Your task to perform on an android device: Open Yahoo.com Image 0: 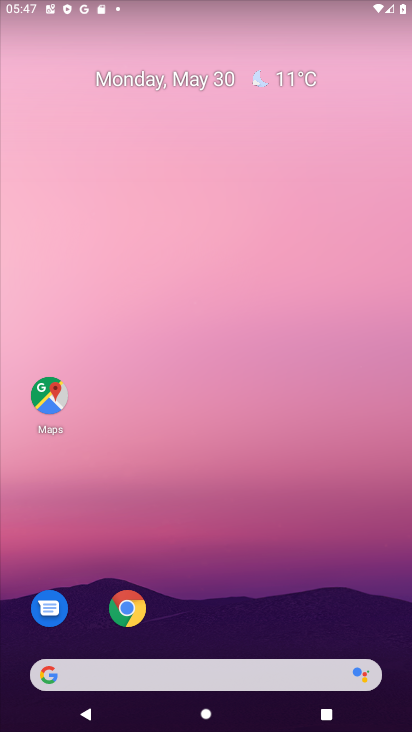
Step 0: click (126, 612)
Your task to perform on an android device: Open Yahoo.com Image 1: 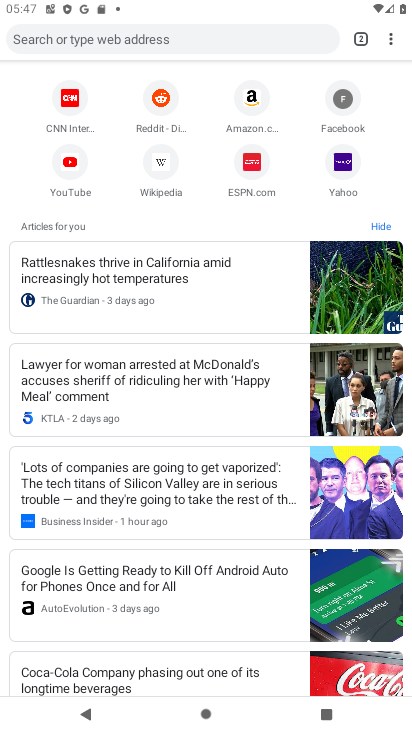
Step 1: click (354, 171)
Your task to perform on an android device: Open Yahoo.com Image 2: 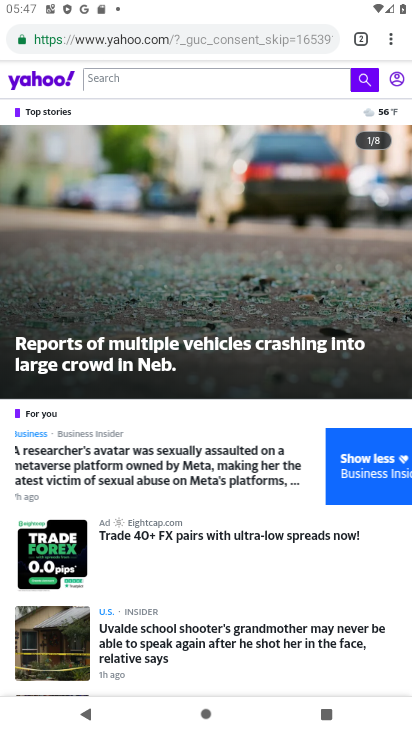
Step 2: task complete